Your task to perform on an android device: check battery use Image 0: 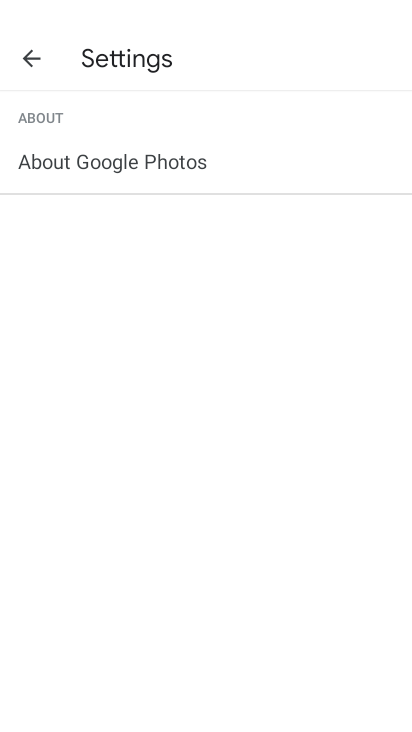
Step 0: press home button
Your task to perform on an android device: check battery use Image 1: 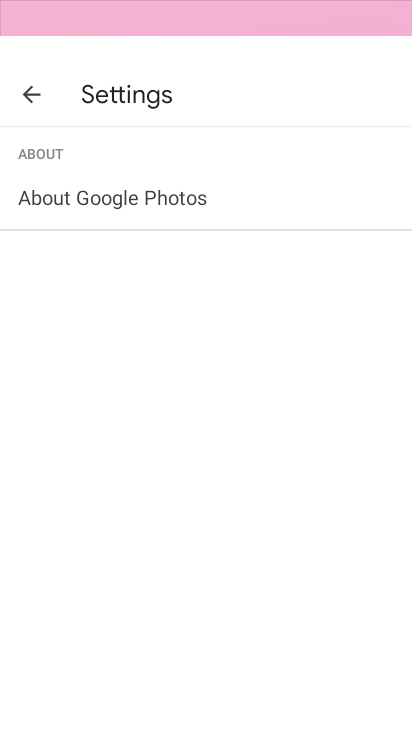
Step 1: press home button
Your task to perform on an android device: check battery use Image 2: 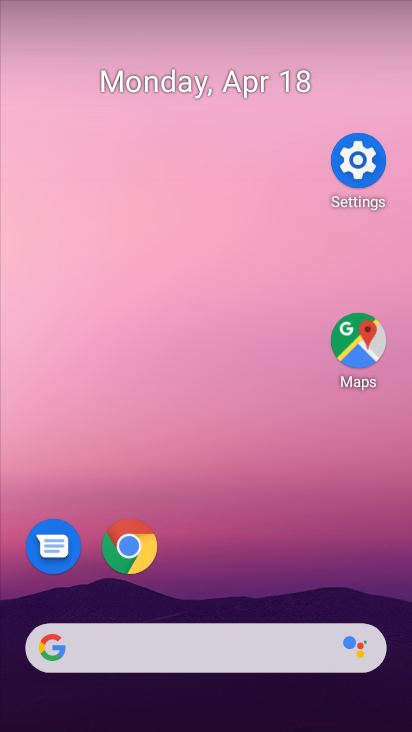
Step 2: click (145, 35)
Your task to perform on an android device: check battery use Image 3: 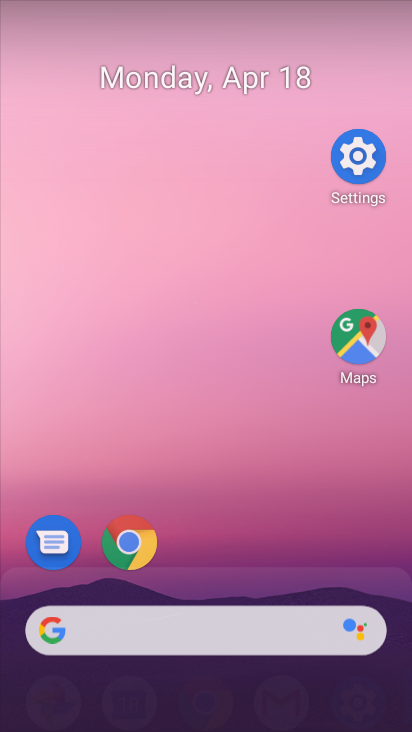
Step 3: drag from (207, 454) to (225, 16)
Your task to perform on an android device: check battery use Image 4: 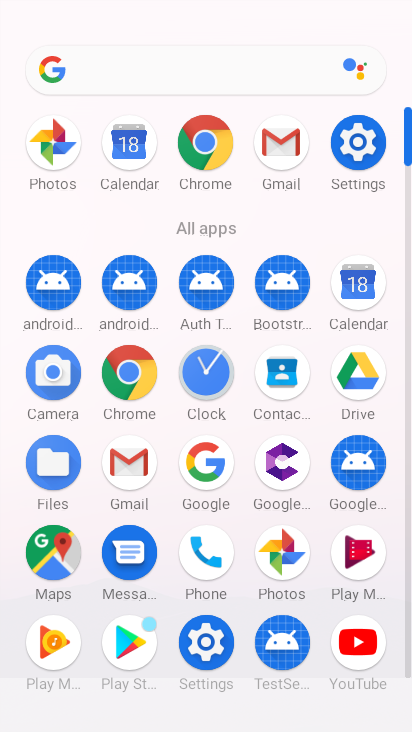
Step 4: click (363, 151)
Your task to perform on an android device: check battery use Image 5: 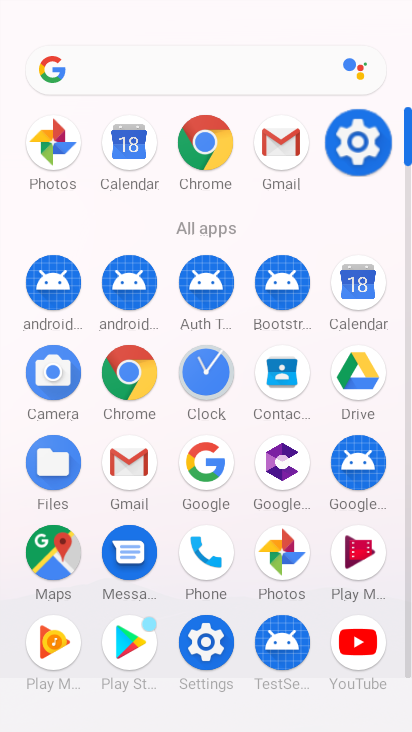
Step 5: click (360, 128)
Your task to perform on an android device: check battery use Image 6: 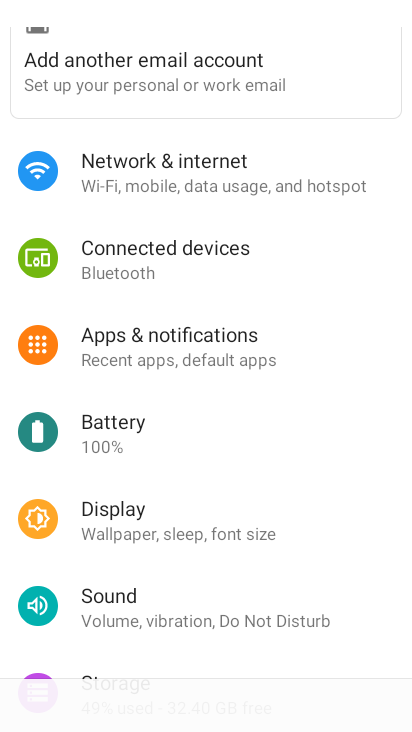
Step 6: drag from (261, 407) to (239, 268)
Your task to perform on an android device: check battery use Image 7: 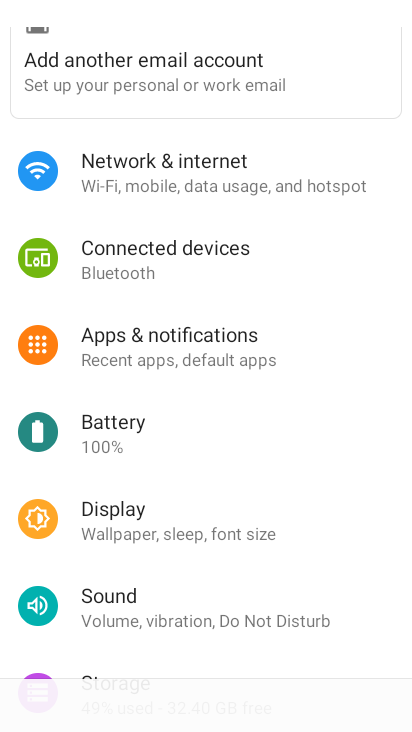
Step 7: click (103, 431)
Your task to perform on an android device: check battery use Image 8: 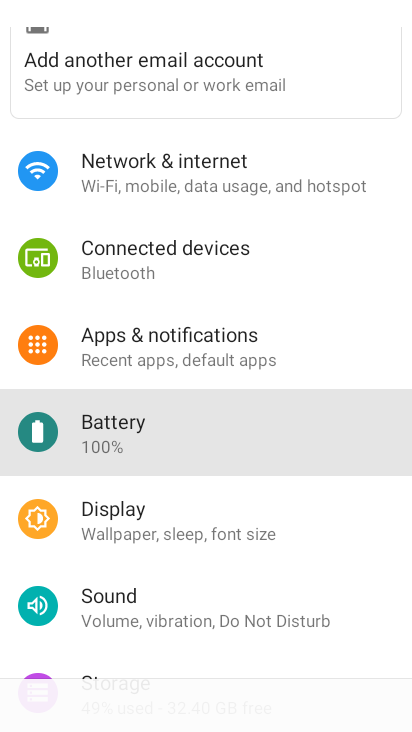
Step 8: click (103, 431)
Your task to perform on an android device: check battery use Image 9: 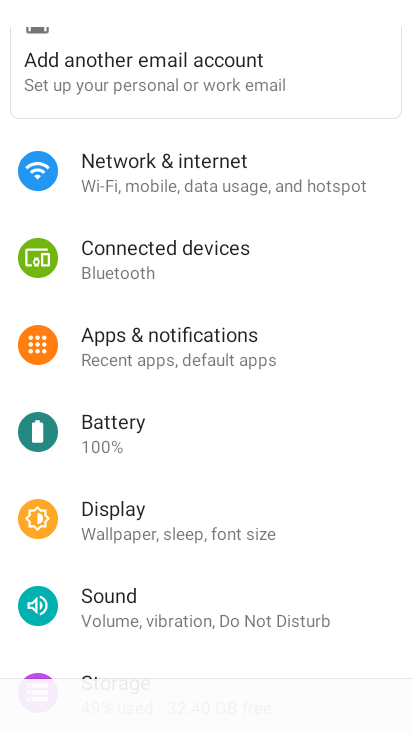
Step 9: click (103, 431)
Your task to perform on an android device: check battery use Image 10: 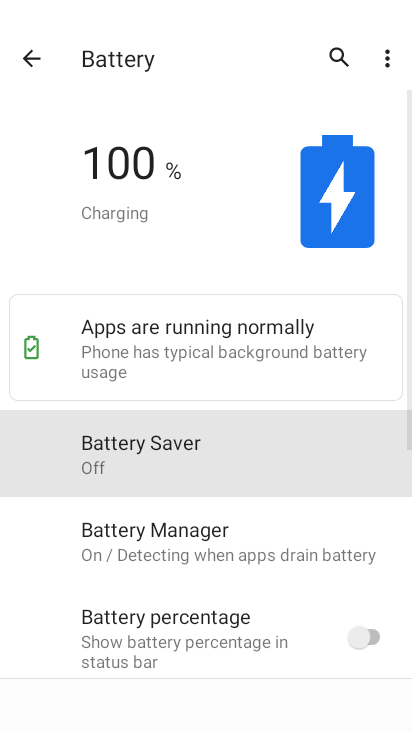
Step 10: task complete